Your task to perform on an android device: Open Youtube and go to "Your channel" Image 0: 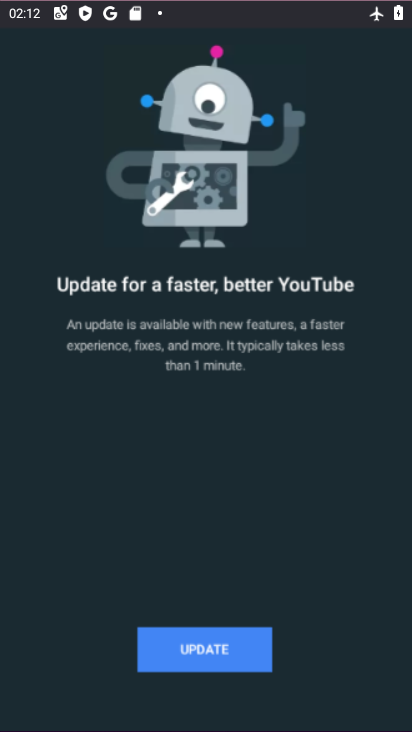
Step 0: drag from (189, 610) to (307, 147)
Your task to perform on an android device: Open Youtube and go to "Your channel" Image 1: 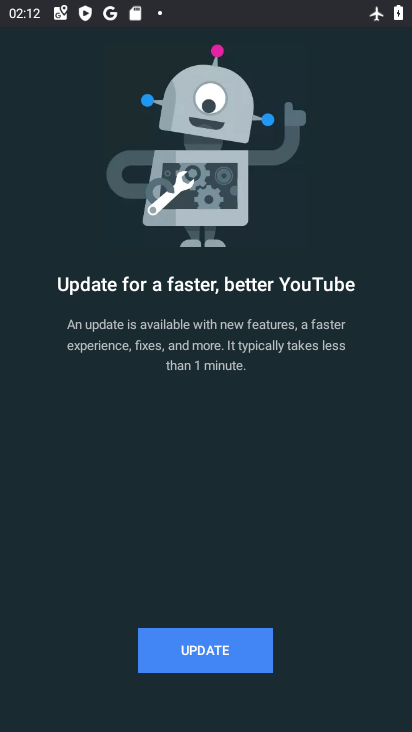
Step 1: press home button
Your task to perform on an android device: Open Youtube and go to "Your channel" Image 2: 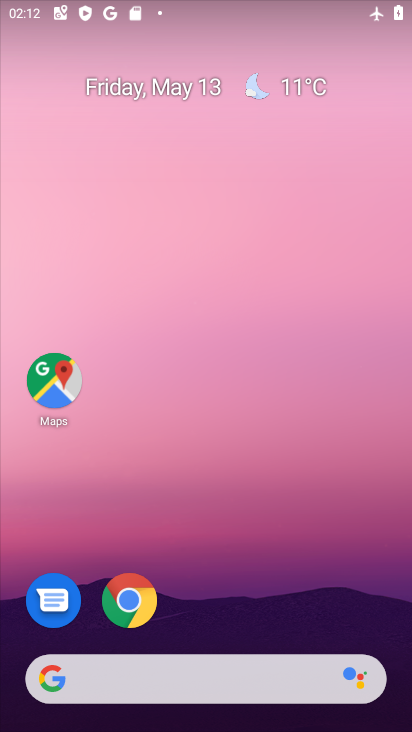
Step 2: drag from (201, 624) to (318, 140)
Your task to perform on an android device: Open Youtube and go to "Your channel" Image 3: 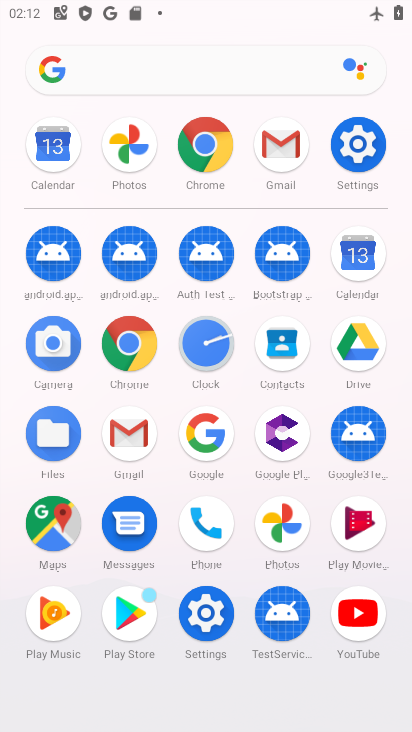
Step 3: click (372, 602)
Your task to perform on an android device: Open Youtube and go to "Your channel" Image 4: 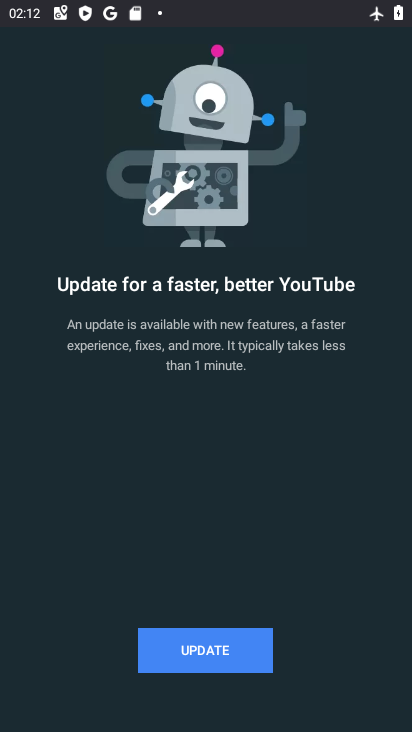
Step 4: click (202, 659)
Your task to perform on an android device: Open Youtube and go to "Your channel" Image 5: 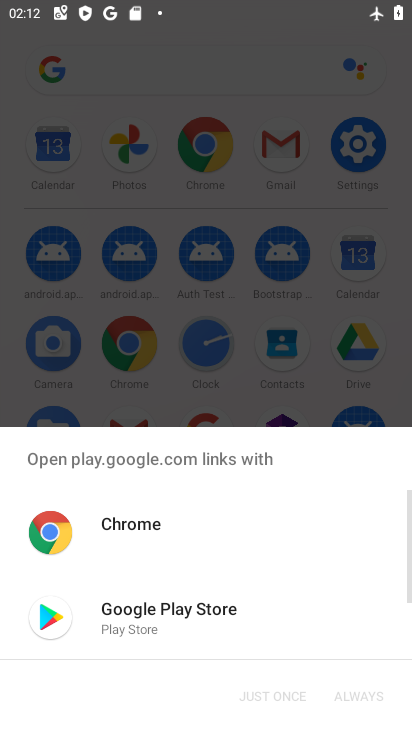
Step 5: click (184, 594)
Your task to perform on an android device: Open Youtube and go to "Your channel" Image 6: 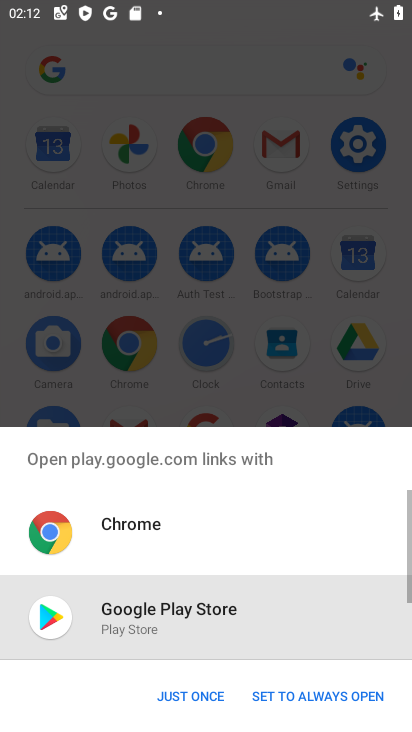
Step 6: click (167, 697)
Your task to perform on an android device: Open Youtube and go to "Your channel" Image 7: 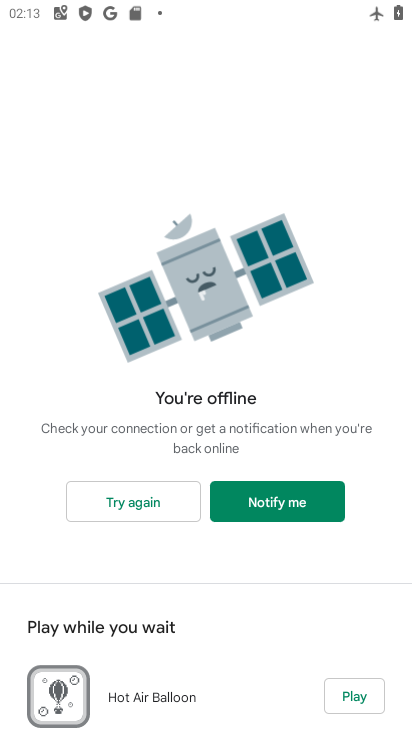
Step 7: click (179, 502)
Your task to perform on an android device: Open Youtube and go to "Your channel" Image 8: 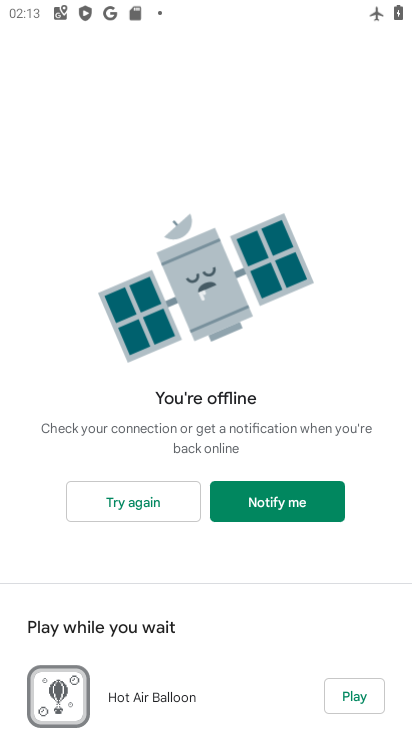
Step 8: task complete